Your task to perform on an android device: What's the weather going to be tomorrow? Image 0: 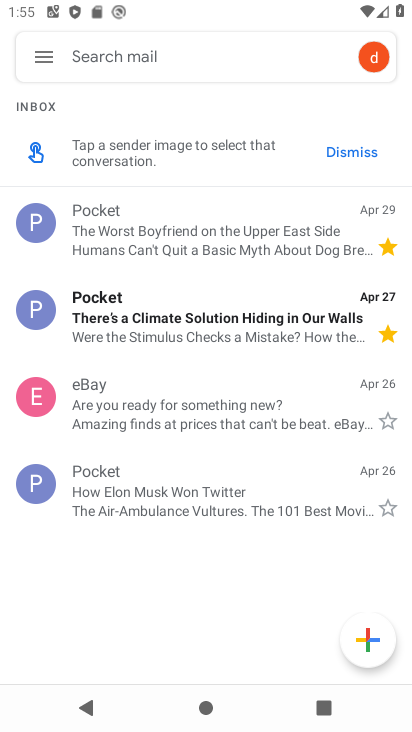
Step 0: press home button
Your task to perform on an android device: What's the weather going to be tomorrow? Image 1: 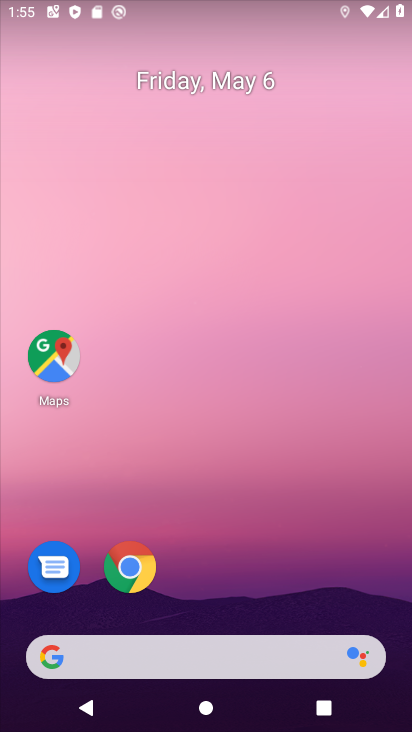
Step 1: drag from (13, 178) to (365, 182)
Your task to perform on an android device: What's the weather going to be tomorrow? Image 2: 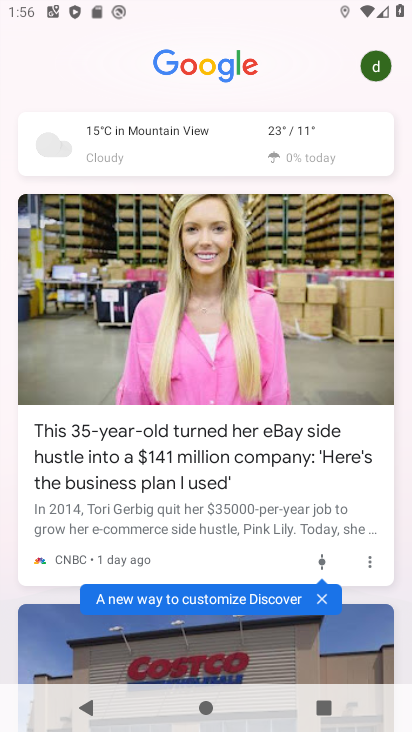
Step 2: click (285, 134)
Your task to perform on an android device: What's the weather going to be tomorrow? Image 3: 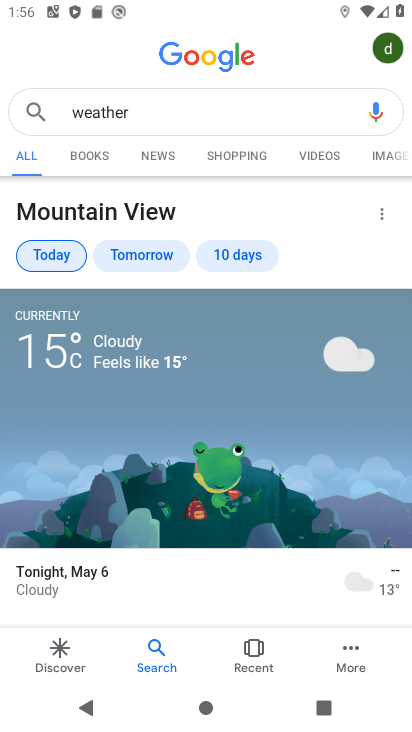
Step 3: click (148, 255)
Your task to perform on an android device: What's the weather going to be tomorrow? Image 4: 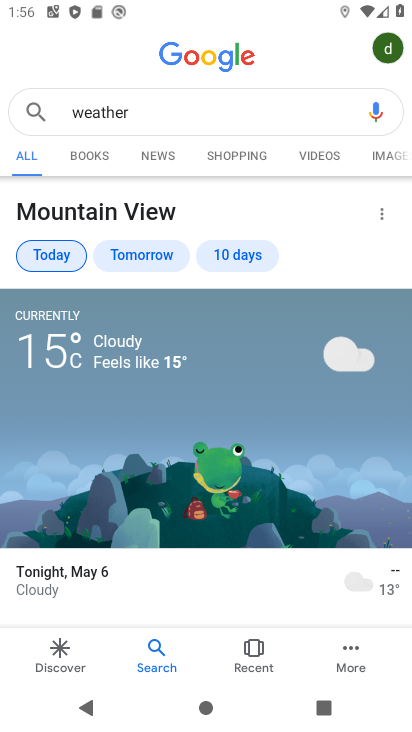
Step 4: click (137, 248)
Your task to perform on an android device: What's the weather going to be tomorrow? Image 5: 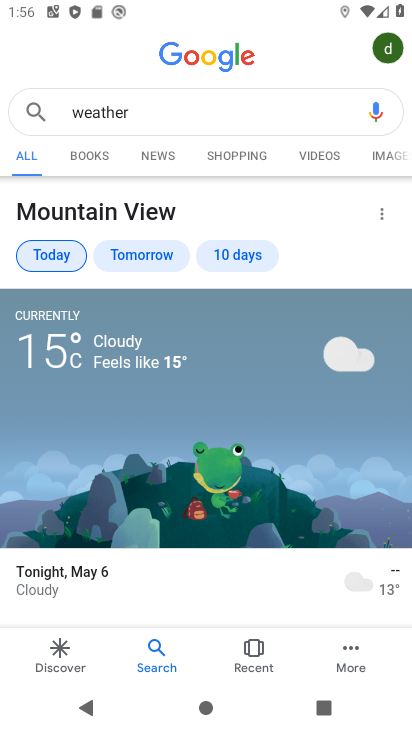
Step 5: click (138, 258)
Your task to perform on an android device: What's the weather going to be tomorrow? Image 6: 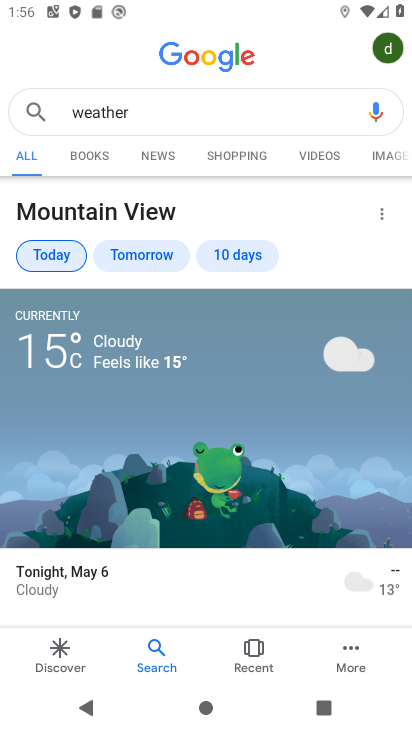
Step 6: click (146, 256)
Your task to perform on an android device: What's the weather going to be tomorrow? Image 7: 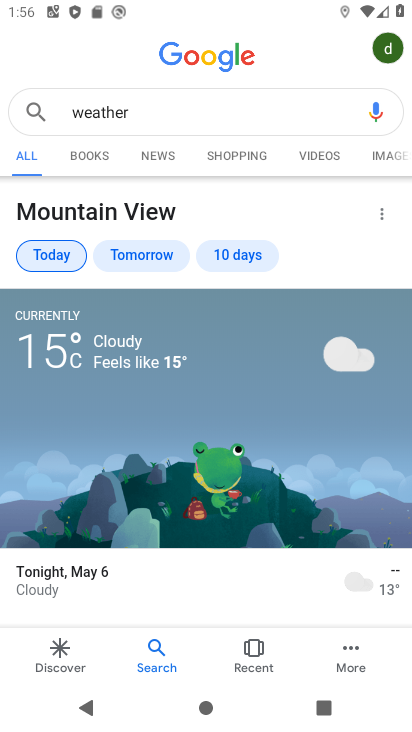
Step 7: task complete